Your task to perform on an android device: turn on priority inbox in the gmail app Image 0: 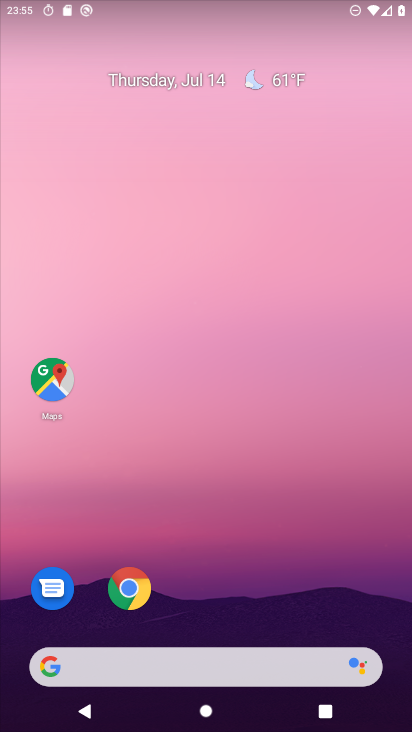
Step 0: drag from (239, 602) to (209, 123)
Your task to perform on an android device: turn on priority inbox in the gmail app Image 1: 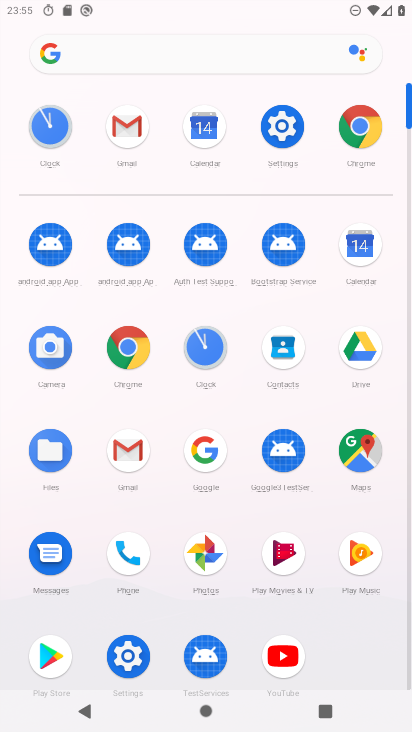
Step 1: click (135, 465)
Your task to perform on an android device: turn on priority inbox in the gmail app Image 2: 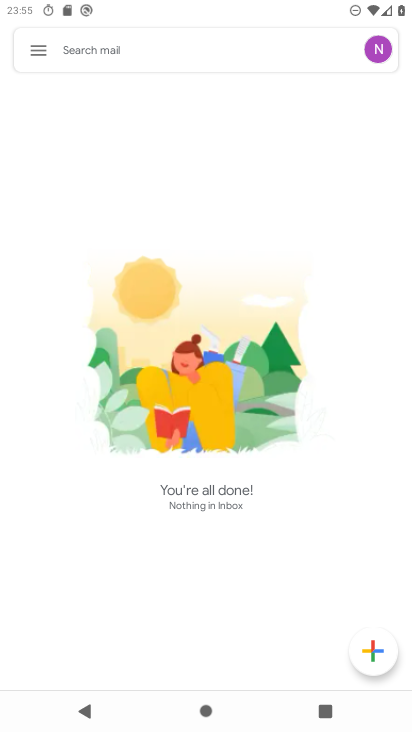
Step 2: click (45, 53)
Your task to perform on an android device: turn on priority inbox in the gmail app Image 3: 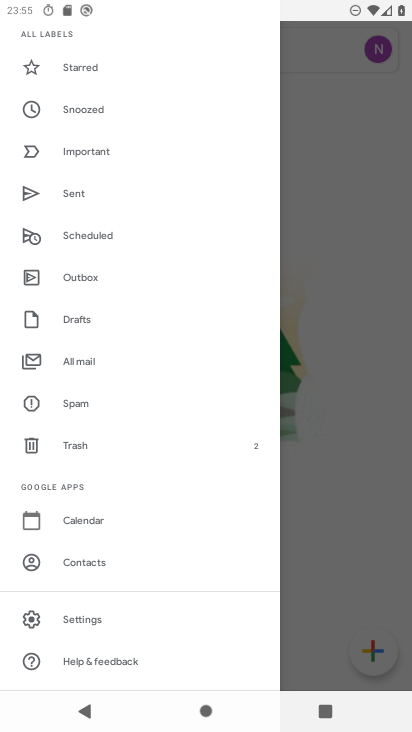
Step 3: click (100, 624)
Your task to perform on an android device: turn on priority inbox in the gmail app Image 4: 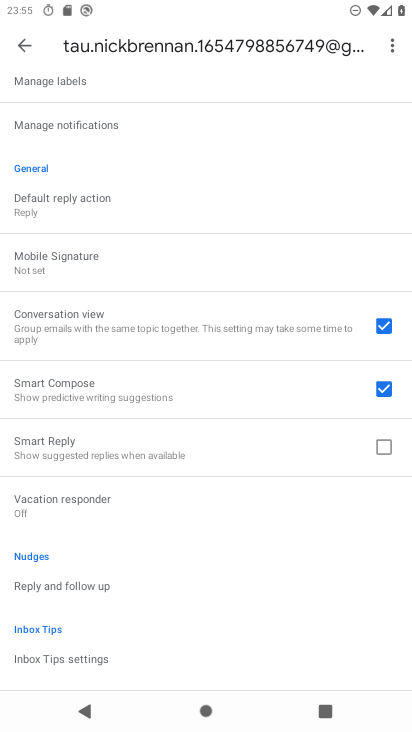
Step 4: drag from (98, 210) to (153, 578)
Your task to perform on an android device: turn on priority inbox in the gmail app Image 5: 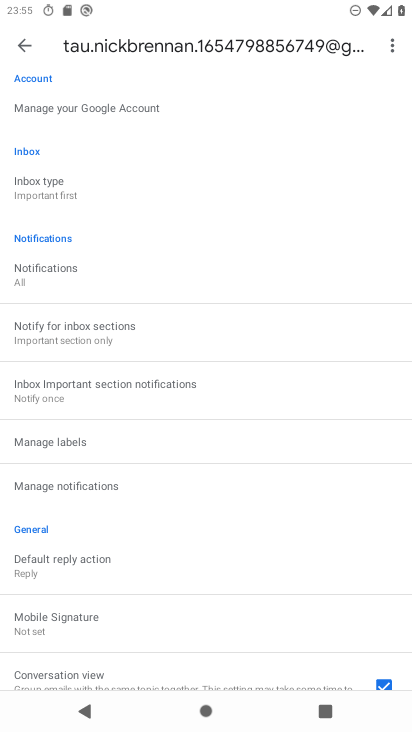
Step 5: click (69, 196)
Your task to perform on an android device: turn on priority inbox in the gmail app Image 6: 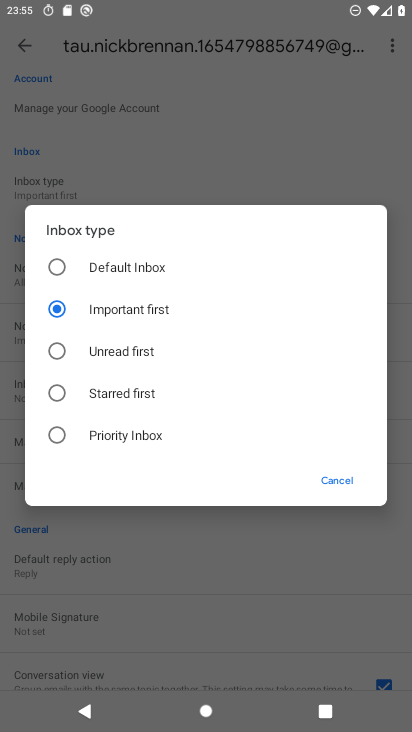
Step 6: click (60, 428)
Your task to perform on an android device: turn on priority inbox in the gmail app Image 7: 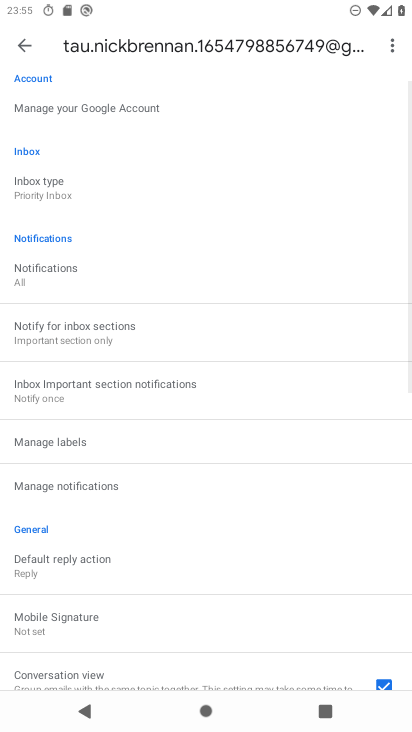
Step 7: task complete